Your task to perform on an android device: Check the weather Image 0: 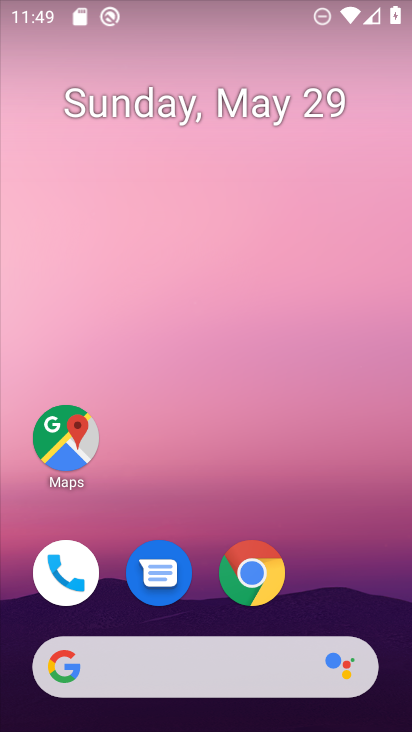
Step 0: click (259, 678)
Your task to perform on an android device: Check the weather Image 1: 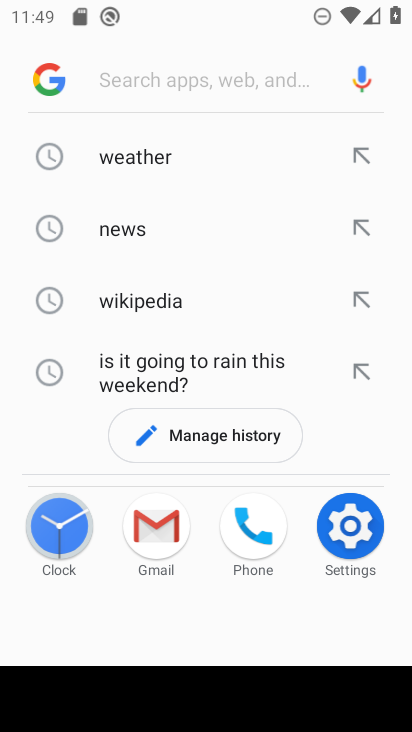
Step 1: click (132, 159)
Your task to perform on an android device: Check the weather Image 2: 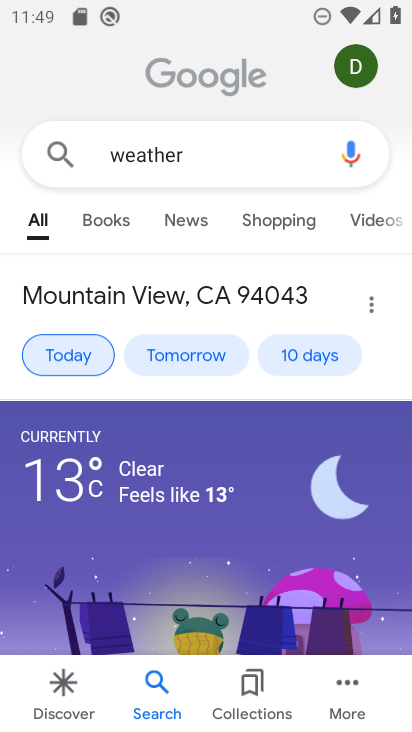
Step 2: task complete